Your task to perform on an android device: add a contact Image 0: 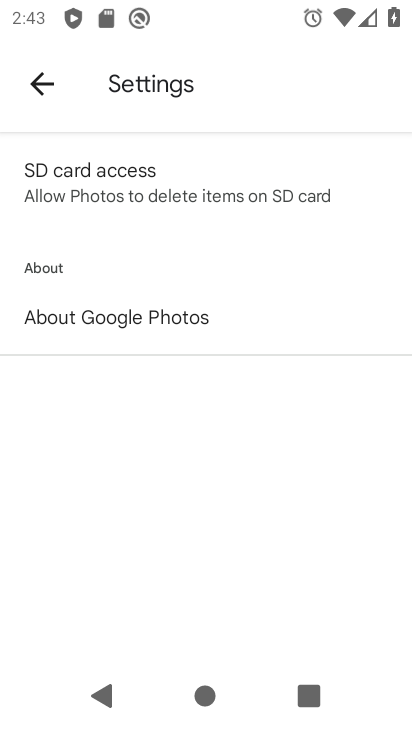
Step 0: press home button
Your task to perform on an android device: add a contact Image 1: 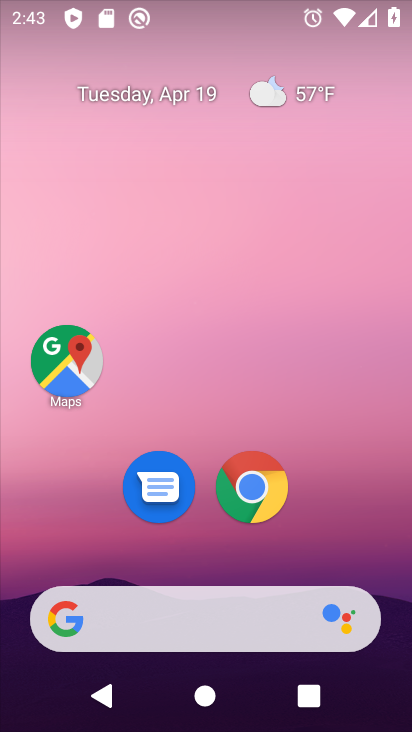
Step 1: drag from (388, 485) to (384, 105)
Your task to perform on an android device: add a contact Image 2: 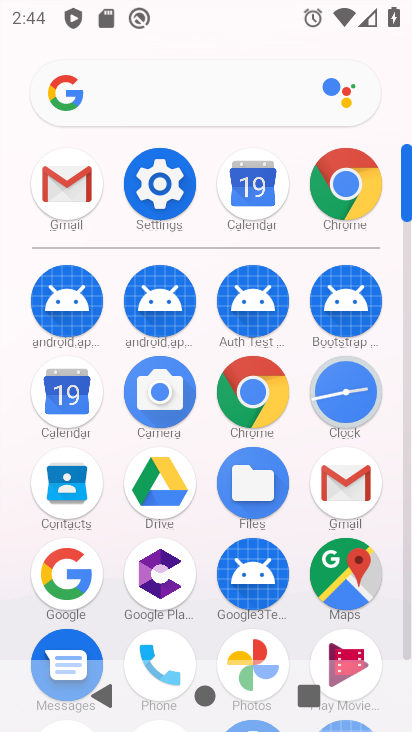
Step 2: click (59, 469)
Your task to perform on an android device: add a contact Image 3: 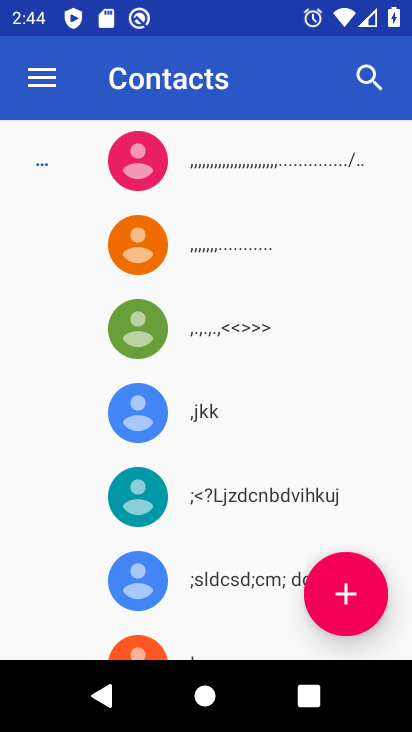
Step 3: click (353, 595)
Your task to perform on an android device: add a contact Image 4: 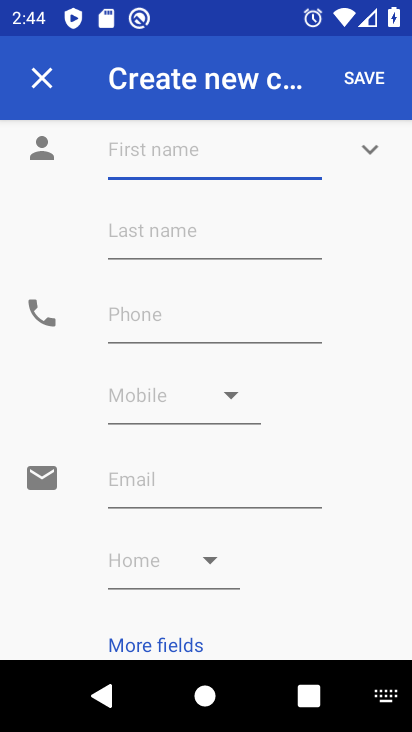
Step 4: type "rajnit"
Your task to perform on an android device: add a contact Image 5: 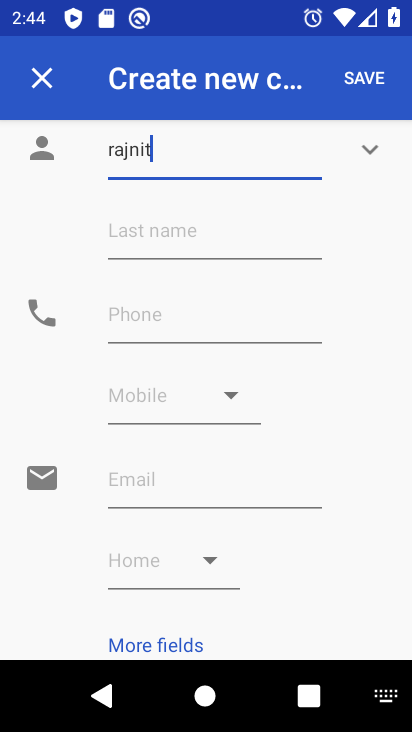
Step 5: click (166, 321)
Your task to perform on an android device: add a contact Image 6: 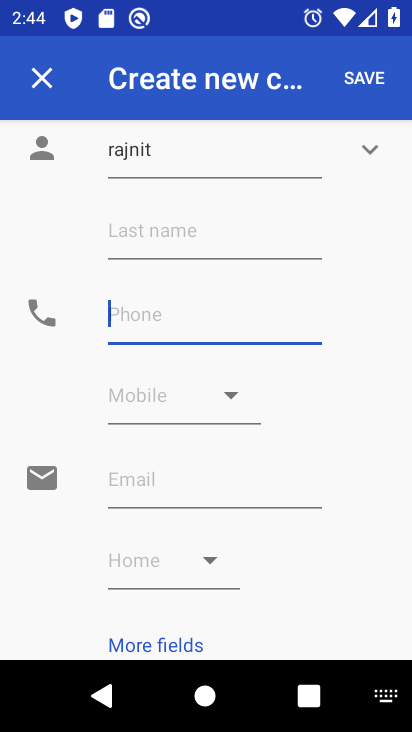
Step 6: type "8987675467"
Your task to perform on an android device: add a contact Image 7: 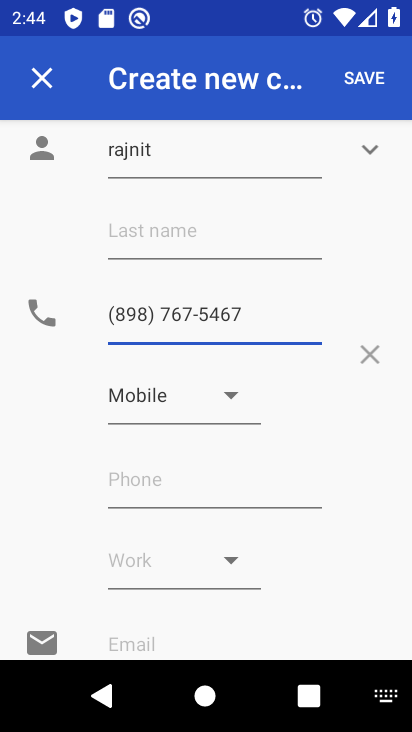
Step 7: task complete